Your task to perform on an android device: Open Yahoo.com Image 0: 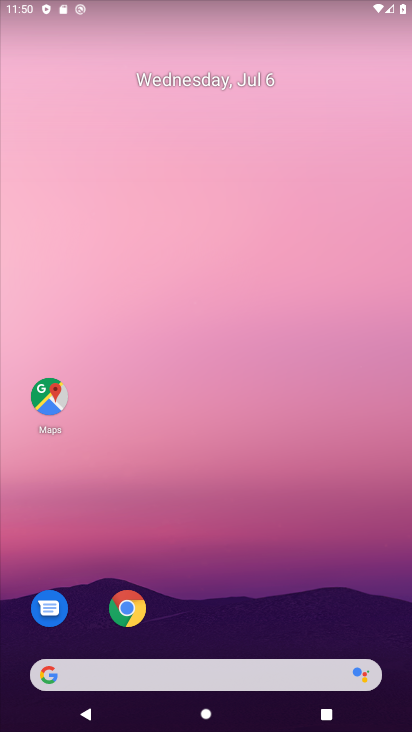
Step 0: drag from (309, 583) to (330, 1)
Your task to perform on an android device: Open Yahoo.com Image 1: 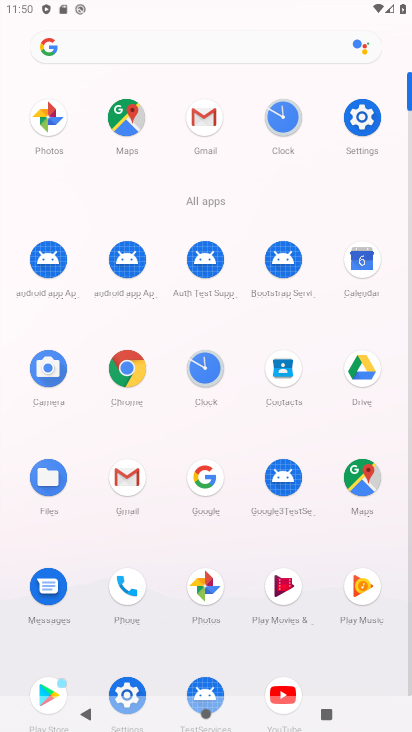
Step 1: click (133, 354)
Your task to perform on an android device: Open Yahoo.com Image 2: 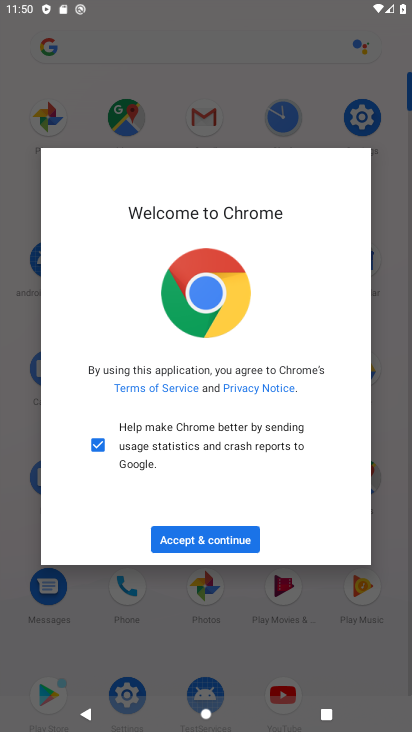
Step 2: click (249, 538)
Your task to perform on an android device: Open Yahoo.com Image 3: 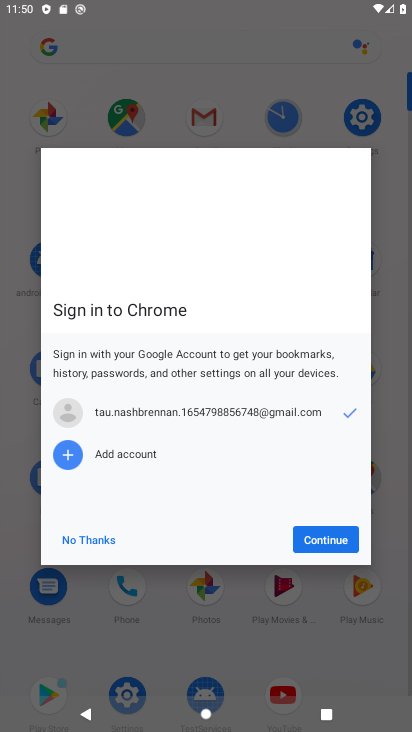
Step 3: click (100, 543)
Your task to perform on an android device: Open Yahoo.com Image 4: 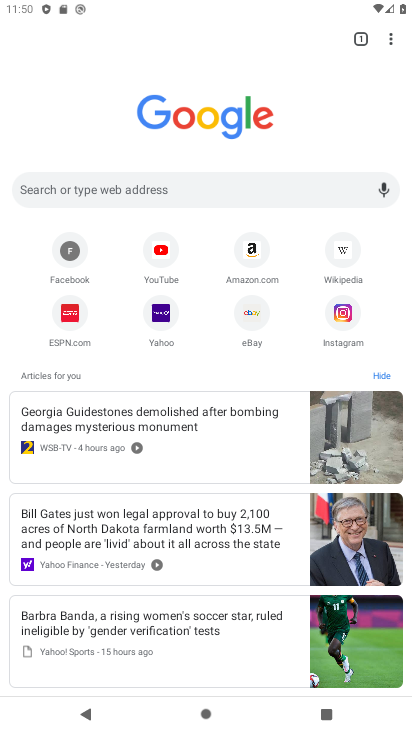
Step 4: click (170, 325)
Your task to perform on an android device: Open Yahoo.com Image 5: 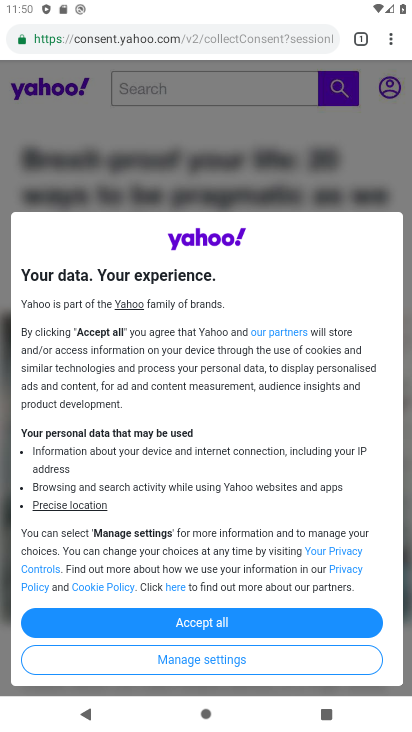
Step 5: task complete